Your task to perform on an android device: manage bookmarks in the chrome app Image 0: 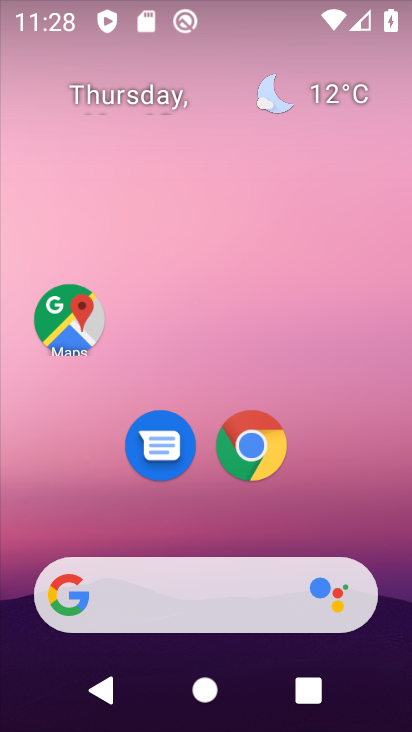
Step 0: click (268, 441)
Your task to perform on an android device: manage bookmarks in the chrome app Image 1: 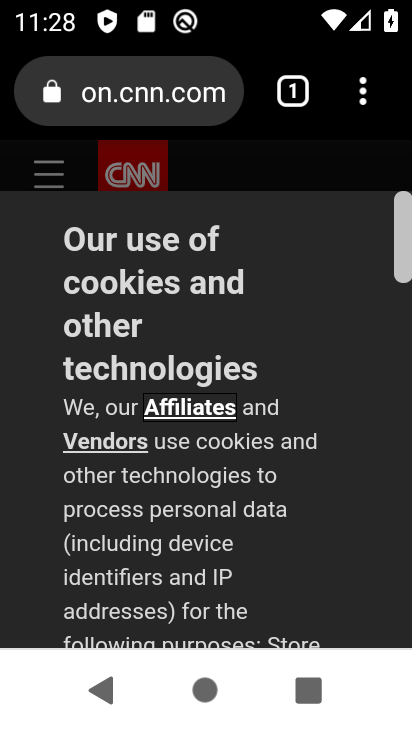
Step 1: task complete